Your task to perform on an android device: visit the assistant section in the google photos Image 0: 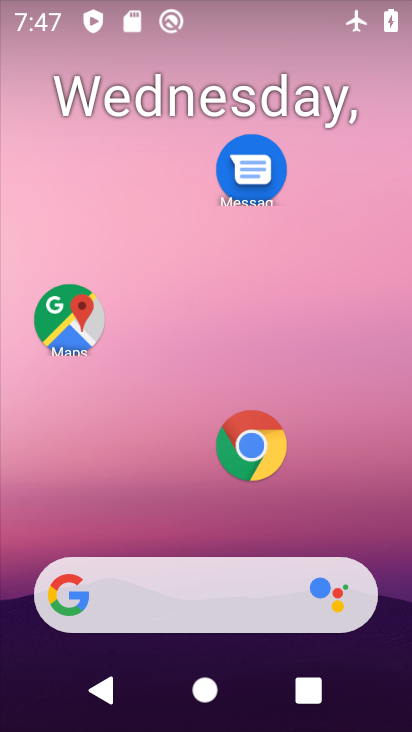
Step 0: drag from (259, 697) to (166, 231)
Your task to perform on an android device: visit the assistant section in the google photos Image 1: 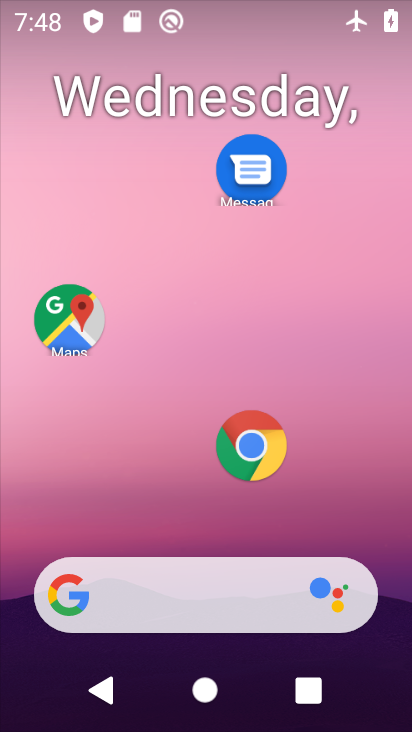
Step 1: drag from (246, 696) to (210, 244)
Your task to perform on an android device: visit the assistant section in the google photos Image 2: 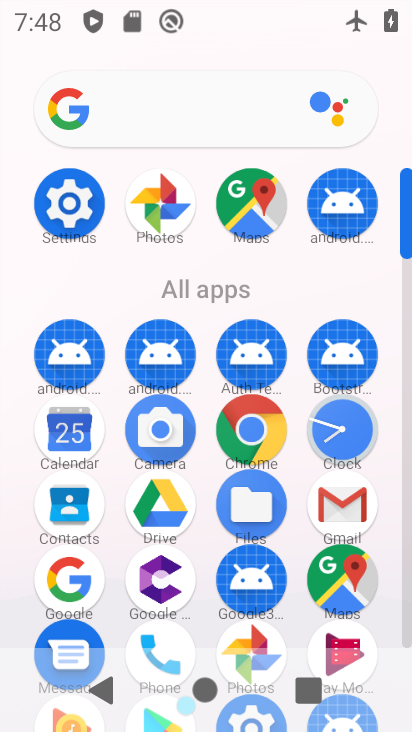
Step 2: drag from (274, 531) to (309, 265)
Your task to perform on an android device: visit the assistant section in the google photos Image 3: 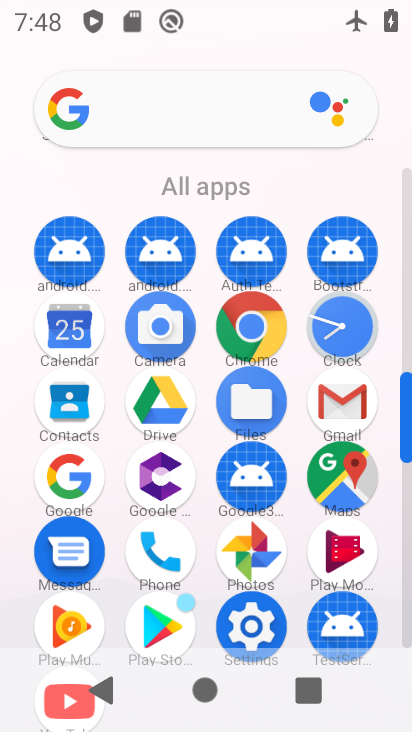
Step 3: drag from (327, 522) to (317, 259)
Your task to perform on an android device: visit the assistant section in the google photos Image 4: 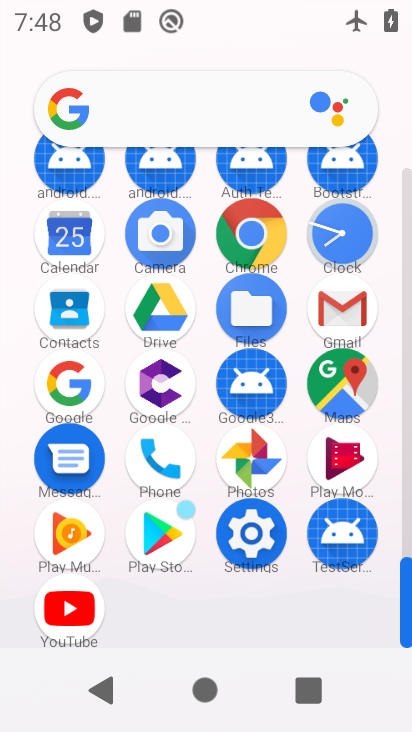
Step 4: click (250, 463)
Your task to perform on an android device: visit the assistant section in the google photos Image 5: 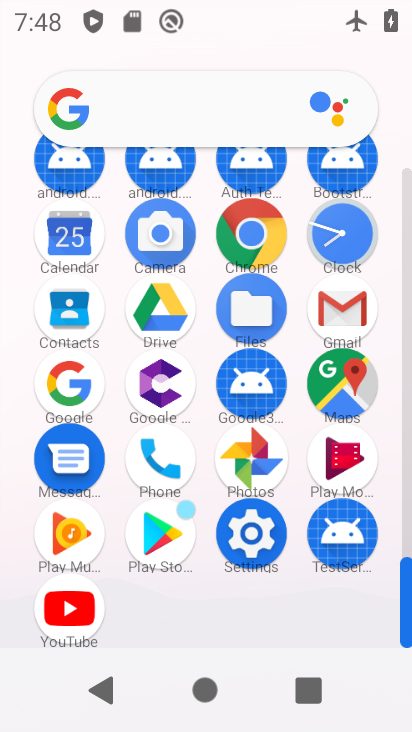
Step 5: click (250, 463)
Your task to perform on an android device: visit the assistant section in the google photos Image 6: 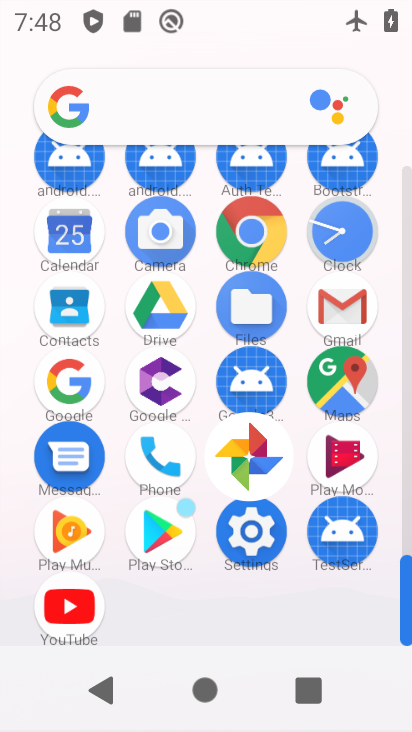
Step 6: click (250, 465)
Your task to perform on an android device: visit the assistant section in the google photos Image 7: 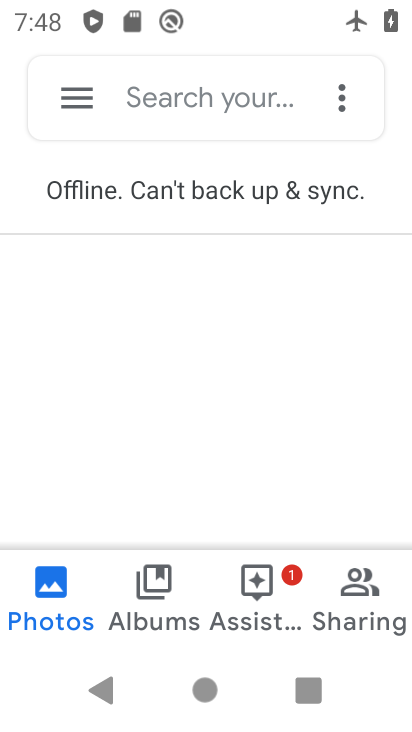
Step 7: task complete